Your task to perform on an android device: Show me productivity apps on the Play Store Image 0: 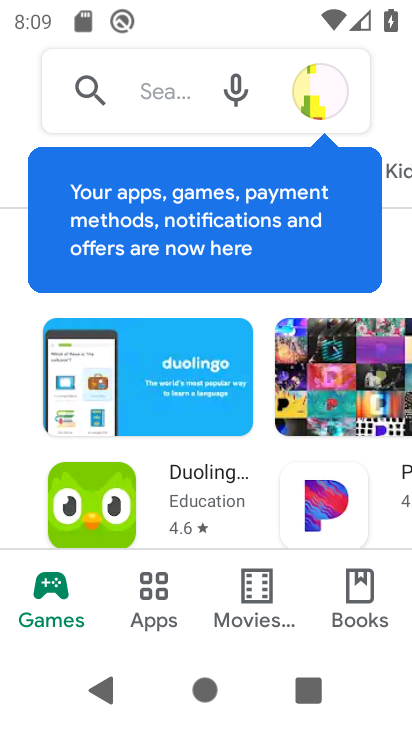
Step 0: press home button
Your task to perform on an android device: Show me productivity apps on the Play Store Image 1: 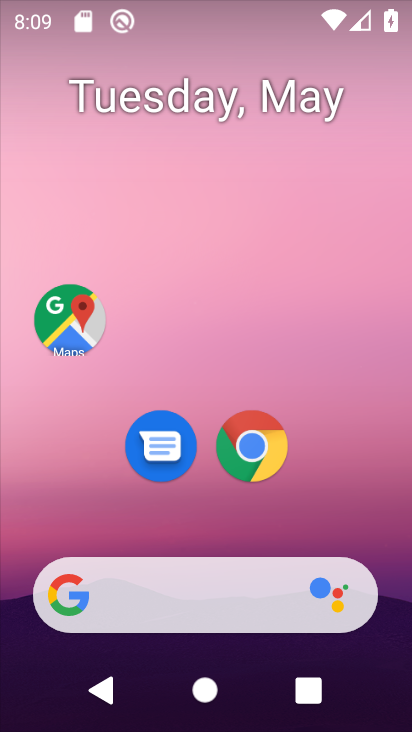
Step 1: drag from (238, 511) to (231, 16)
Your task to perform on an android device: Show me productivity apps on the Play Store Image 2: 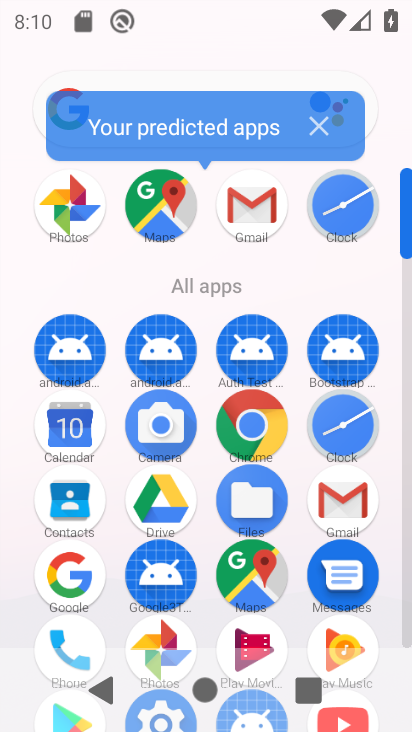
Step 2: drag from (205, 538) to (197, 95)
Your task to perform on an android device: Show me productivity apps on the Play Store Image 3: 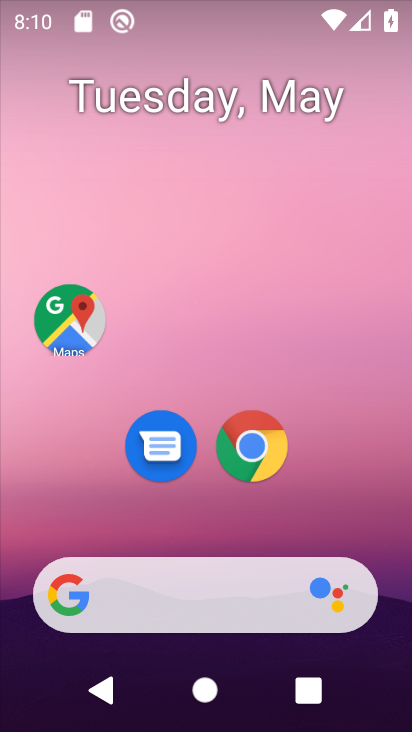
Step 3: drag from (236, 514) to (183, 1)
Your task to perform on an android device: Show me productivity apps on the Play Store Image 4: 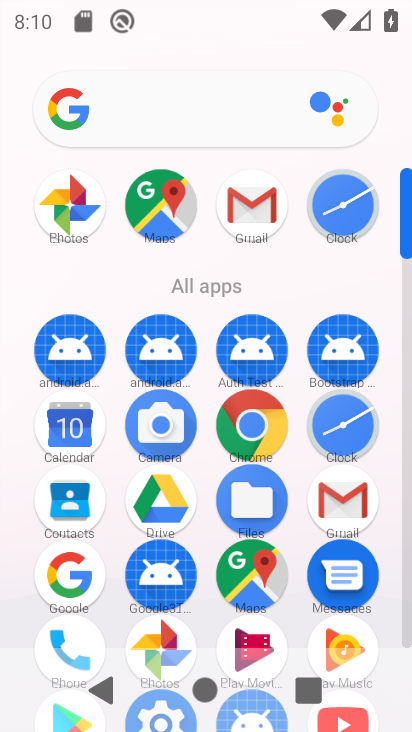
Step 4: drag from (300, 618) to (194, 27)
Your task to perform on an android device: Show me productivity apps on the Play Store Image 5: 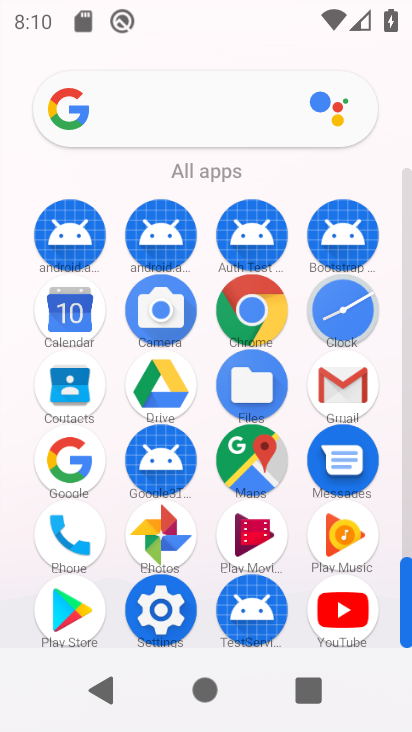
Step 5: click (82, 602)
Your task to perform on an android device: Show me productivity apps on the Play Store Image 6: 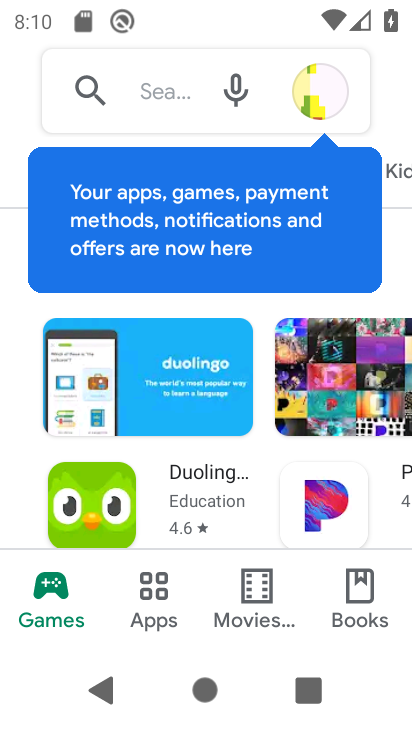
Step 6: drag from (258, 461) to (258, 181)
Your task to perform on an android device: Show me productivity apps on the Play Store Image 7: 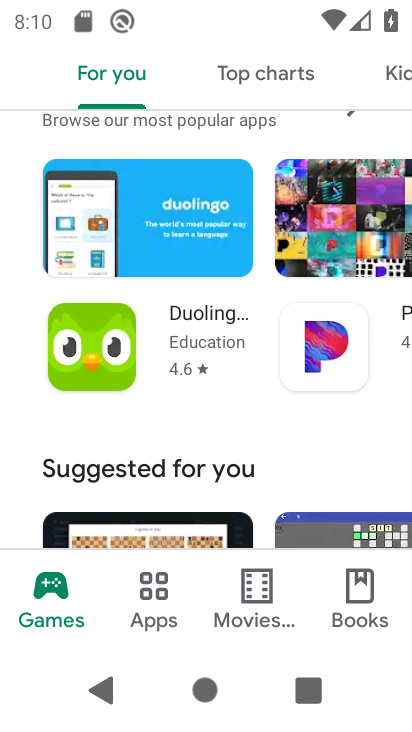
Step 7: click (175, 589)
Your task to perform on an android device: Show me productivity apps on the Play Store Image 8: 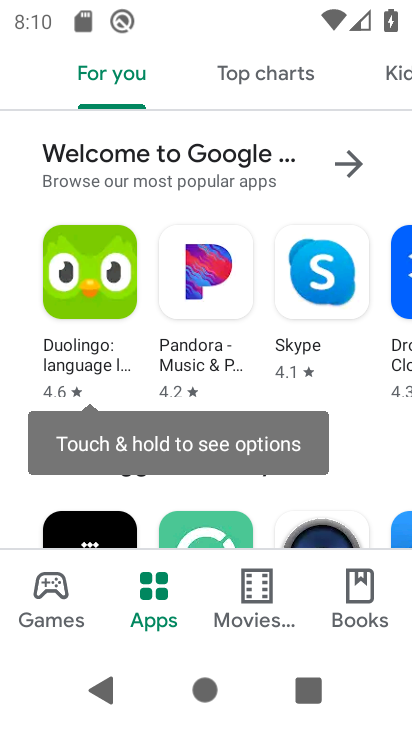
Step 8: drag from (316, 69) to (40, 69)
Your task to perform on an android device: Show me productivity apps on the Play Store Image 9: 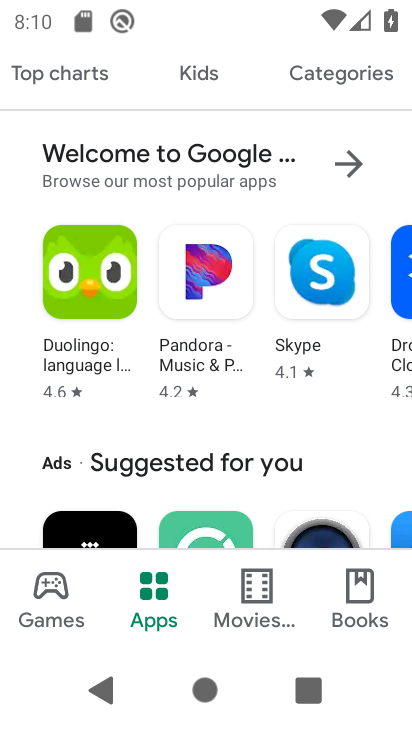
Step 9: click (308, 73)
Your task to perform on an android device: Show me productivity apps on the Play Store Image 10: 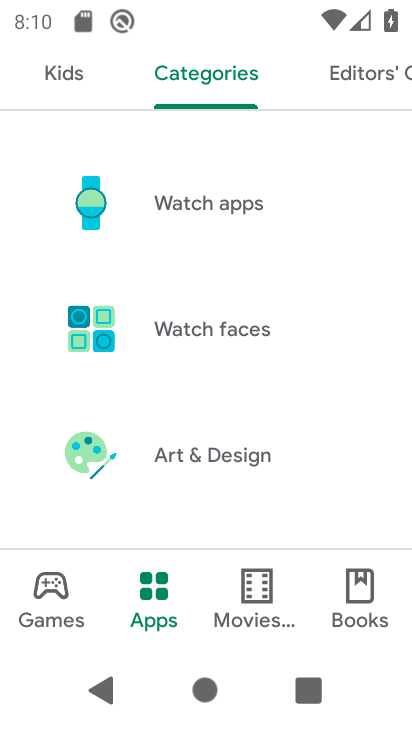
Step 10: drag from (157, 430) to (160, 13)
Your task to perform on an android device: Show me productivity apps on the Play Store Image 11: 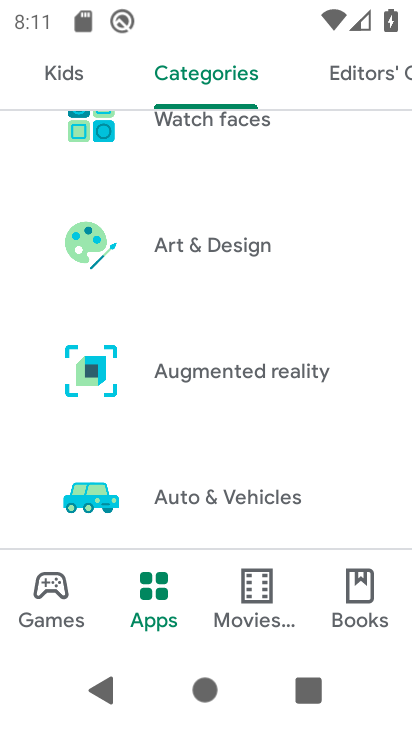
Step 11: drag from (264, 439) to (267, 4)
Your task to perform on an android device: Show me productivity apps on the Play Store Image 12: 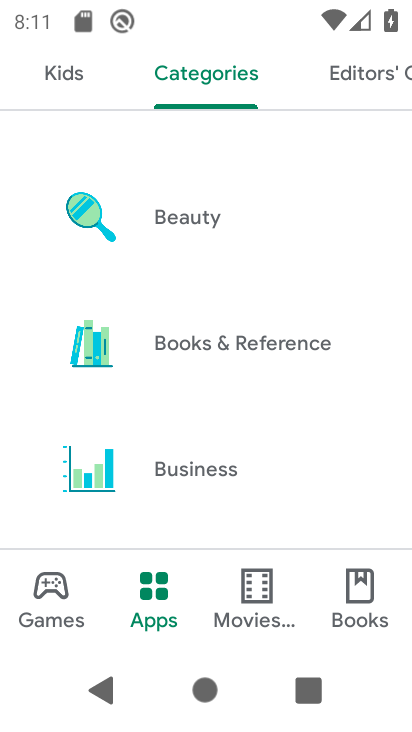
Step 12: drag from (279, 479) to (223, 6)
Your task to perform on an android device: Show me productivity apps on the Play Store Image 13: 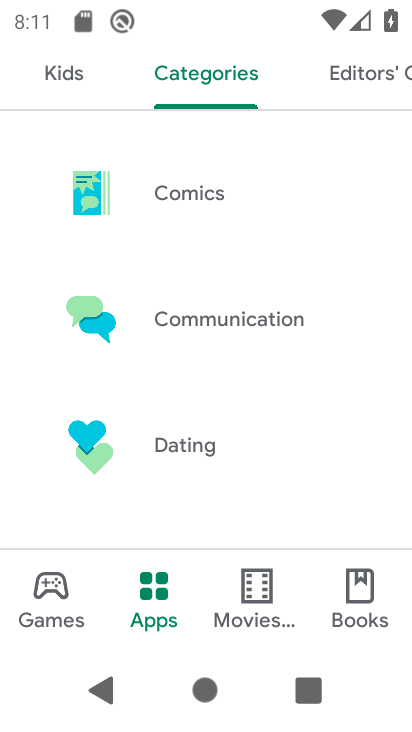
Step 13: drag from (258, 457) to (223, 11)
Your task to perform on an android device: Show me productivity apps on the Play Store Image 14: 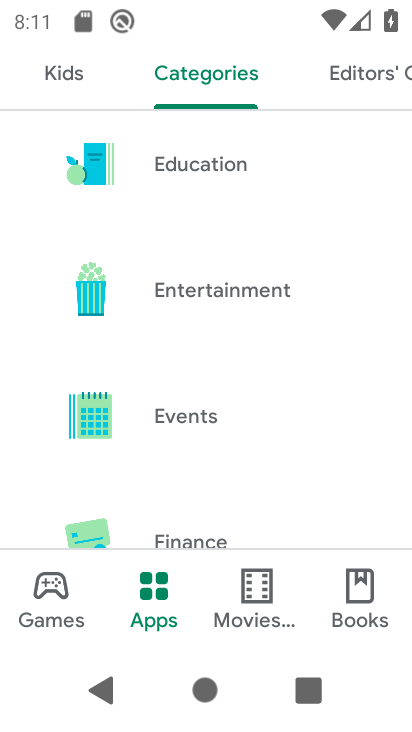
Step 14: drag from (203, 468) to (205, 5)
Your task to perform on an android device: Show me productivity apps on the Play Store Image 15: 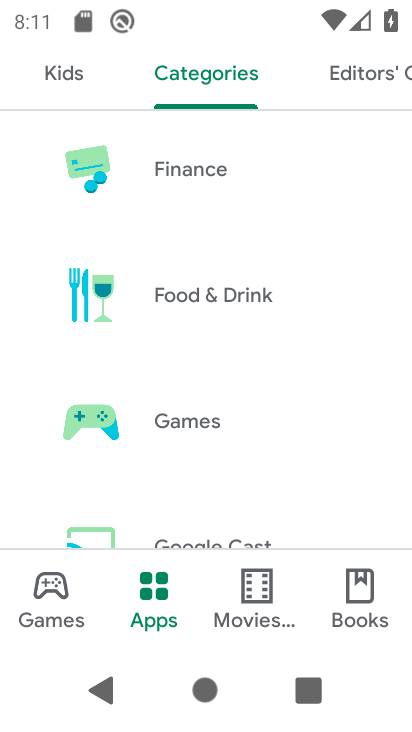
Step 15: drag from (220, 482) to (144, 0)
Your task to perform on an android device: Show me productivity apps on the Play Store Image 16: 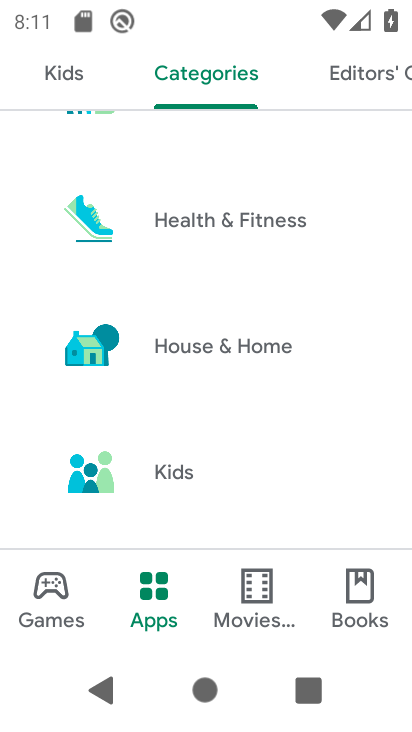
Step 16: drag from (230, 449) to (189, 35)
Your task to perform on an android device: Show me productivity apps on the Play Store Image 17: 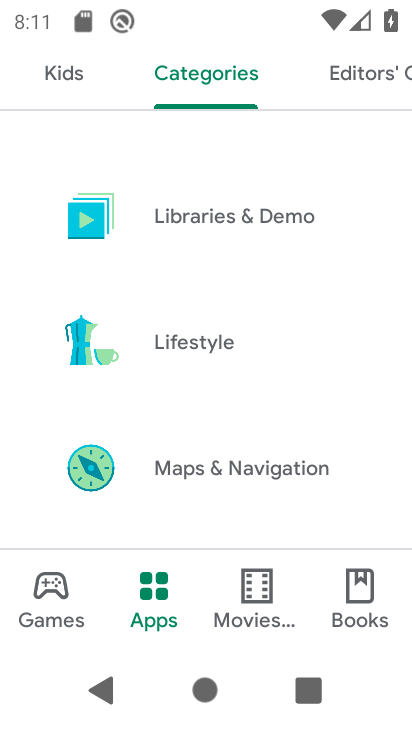
Step 17: drag from (219, 449) to (204, 12)
Your task to perform on an android device: Show me productivity apps on the Play Store Image 18: 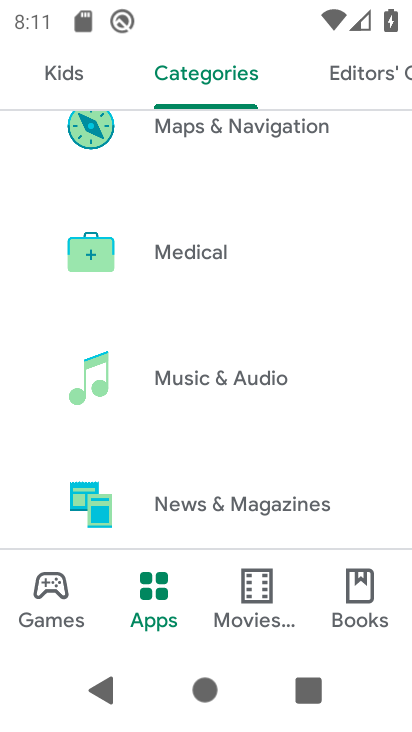
Step 18: drag from (278, 488) to (206, 2)
Your task to perform on an android device: Show me productivity apps on the Play Store Image 19: 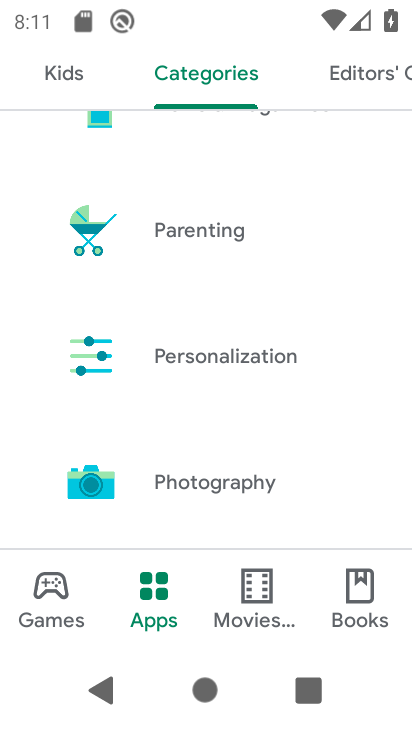
Step 19: drag from (218, 457) to (191, 4)
Your task to perform on an android device: Show me productivity apps on the Play Store Image 20: 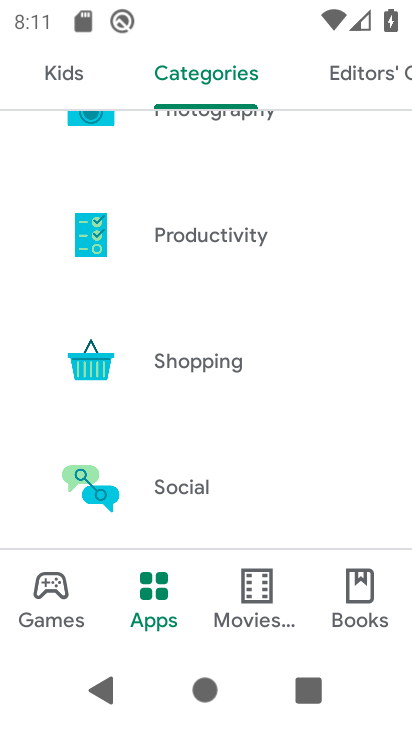
Step 20: click (207, 209)
Your task to perform on an android device: Show me productivity apps on the Play Store Image 21: 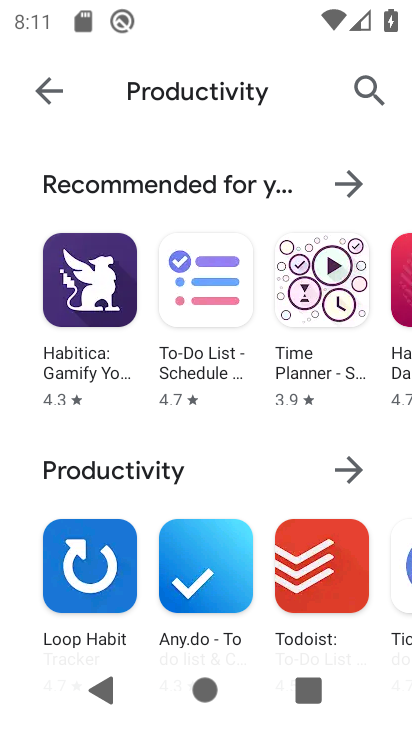
Step 21: task complete